Your task to perform on an android device: check data usage Image 0: 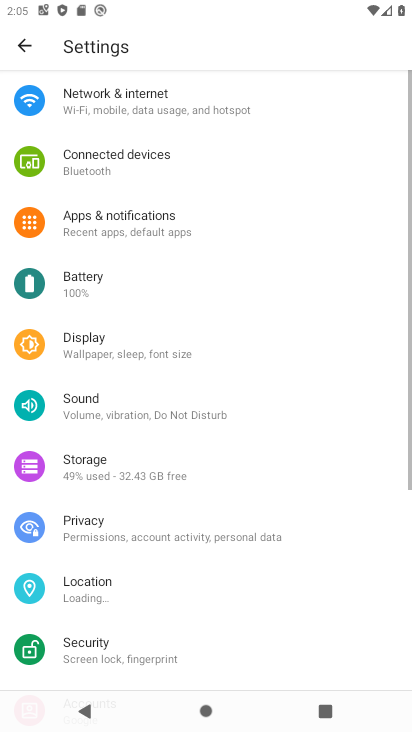
Step 0: drag from (142, 129) to (201, 357)
Your task to perform on an android device: check data usage Image 1: 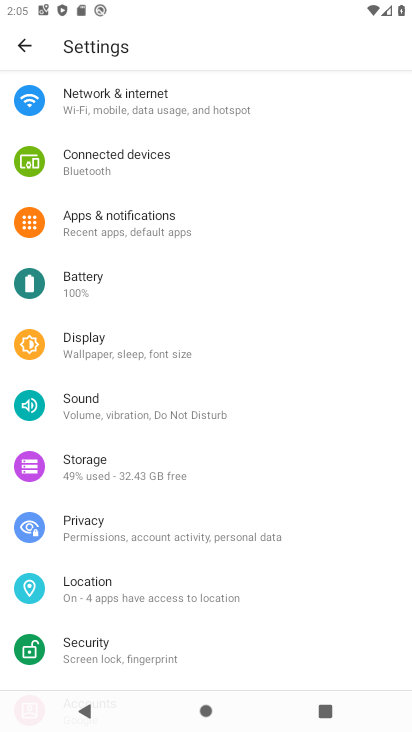
Step 1: click (159, 101)
Your task to perform on an android device: check data usage Image 2: 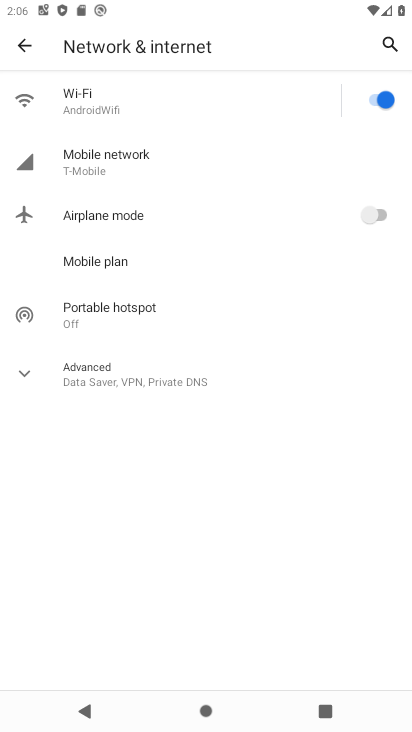
Step 2: click (119, 159)
Your task to perform on an android device: check data usage Image 3: 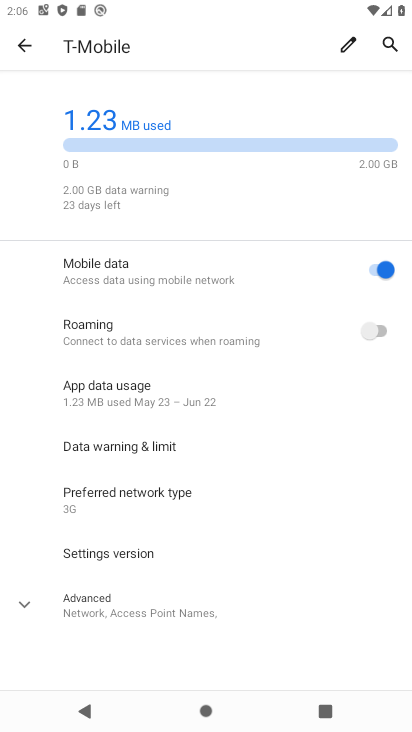
Step 3: task complete